Your task to perform on an android device: Search for Mexican restaurants on Maps Image 0: 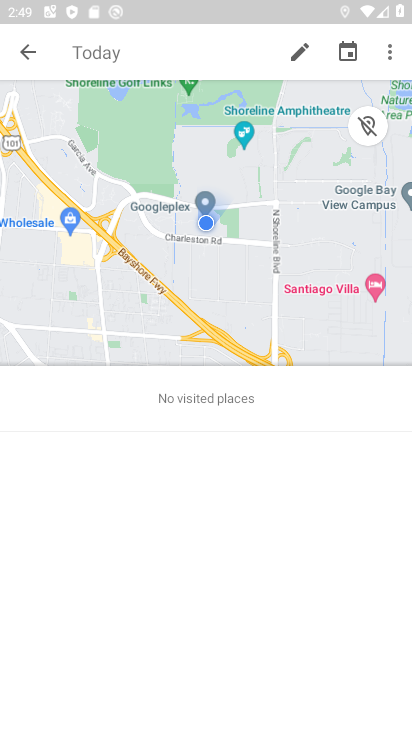
Step 0: press home button
Your task to perform on an android device: Search for Mexican restaurants on Maps Image 1: 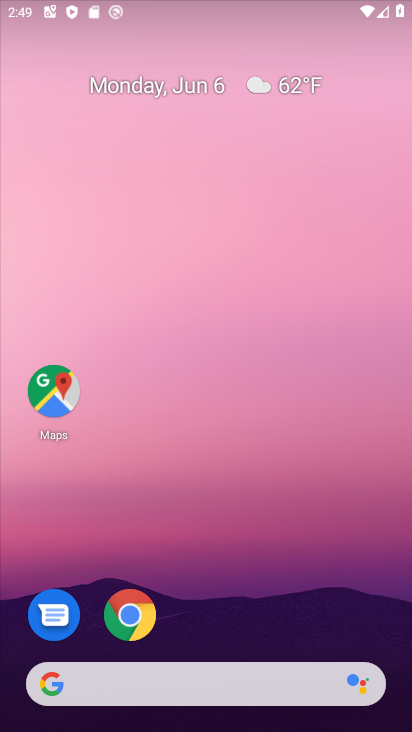
Step 1: drag from (294, 699) to (310, 6)
Your task to perform on an android device: Search for Mexican restaurants on Maps Image 2: 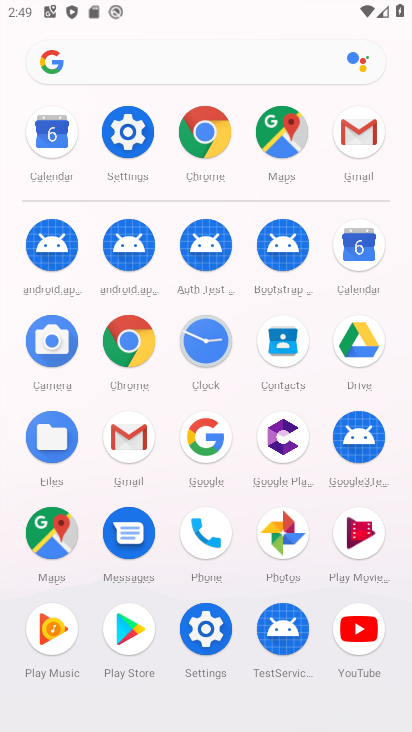
Step 2: click (66, 521)
Your task to perform on an android device: Search for Mexican restaurants on Maps Image 3: 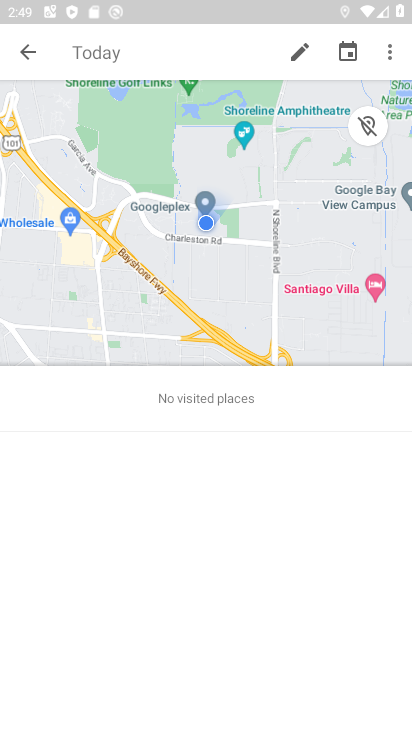
Step 3: press back button
Your task to perform on an android device: Search for Mexican restaurants on Maps Image 4: 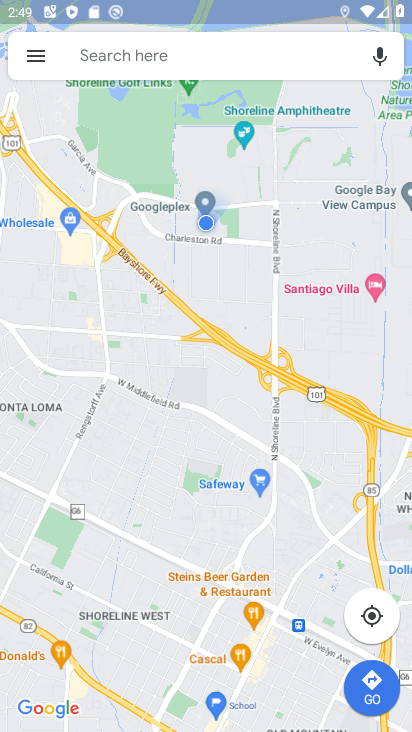
Step 4: click (174, 68)
Your task to perform on an android device: Search for Mexican restaurants on Maps Image 5: 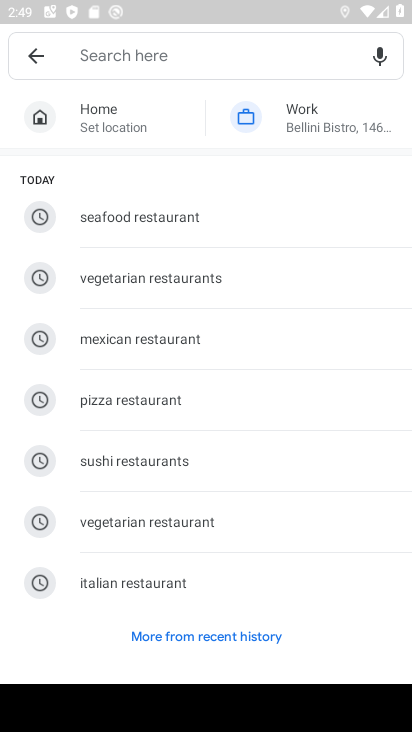
Step 5: click (156, 341)
Your task to perform on an android device: Search for Mexican restaurants on Maps Image 6: 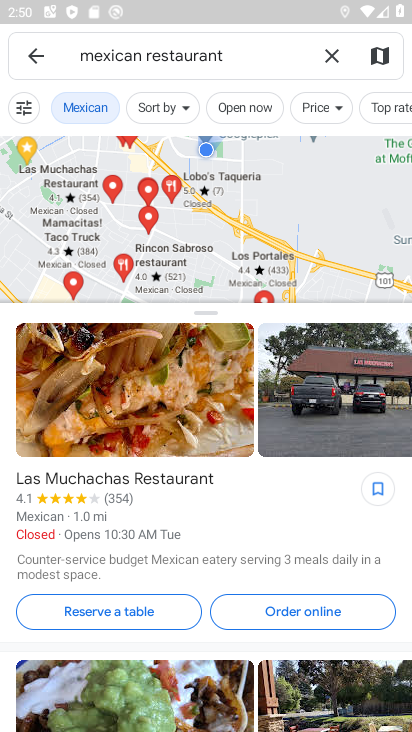
Step 6: task complete